Your task to perform on an android device: Open maps Image 0: 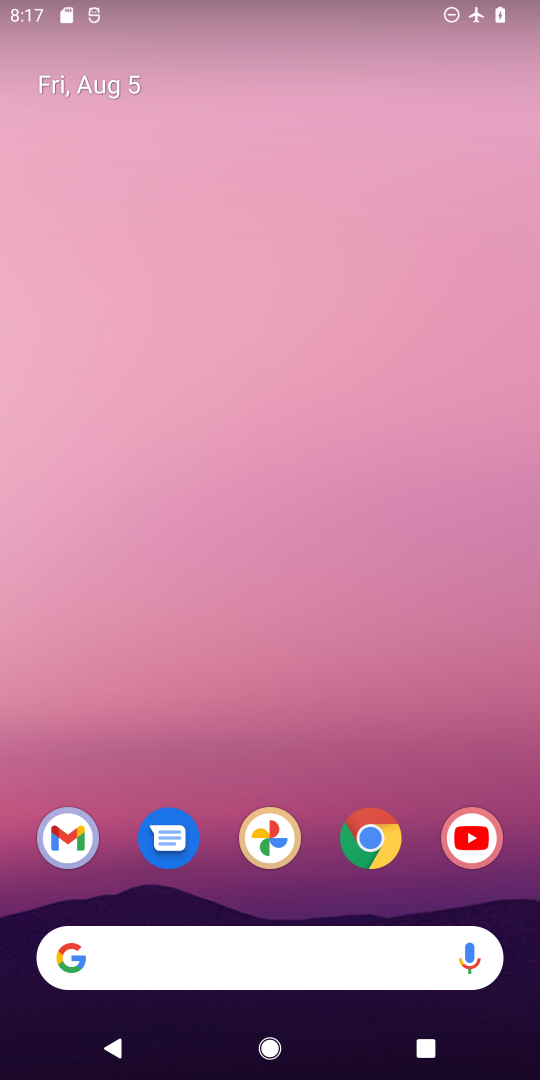
Step 0: drag from (211, 904) to (268, 192)
Your task to perform on an android device: Open maps Image 1: 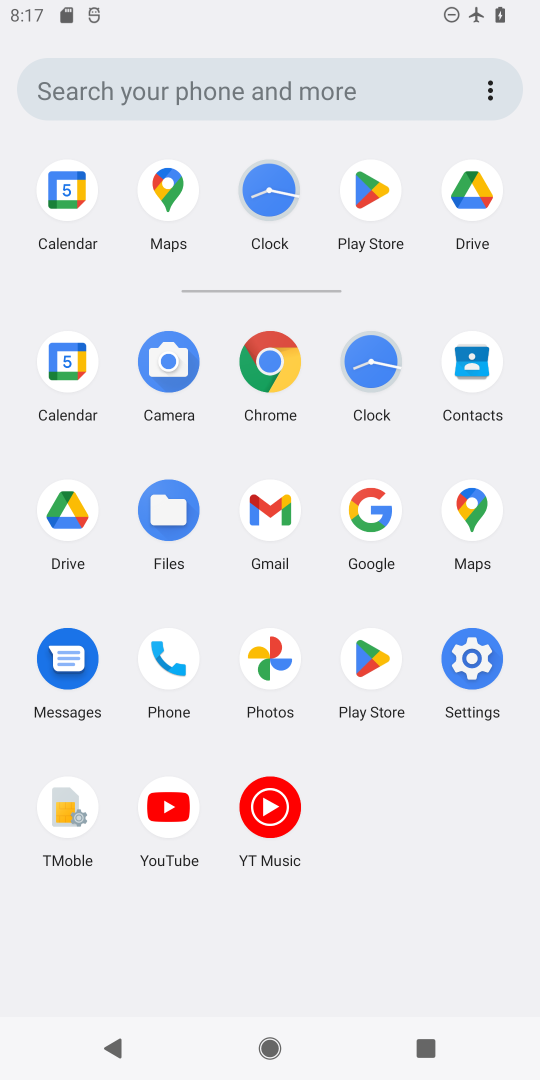
Step 1: click (487, 513)
Your task to perform on an android device: Open maps Image 2: 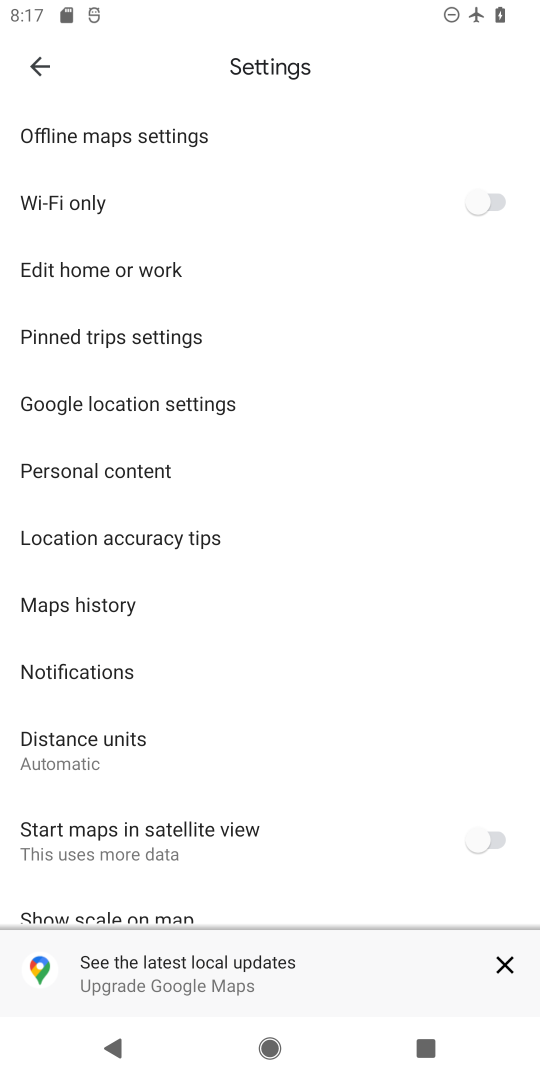
Step 2: drag from (144, 811) to (155, 374)
Your task to perform on an android device: Open maps Image 3: 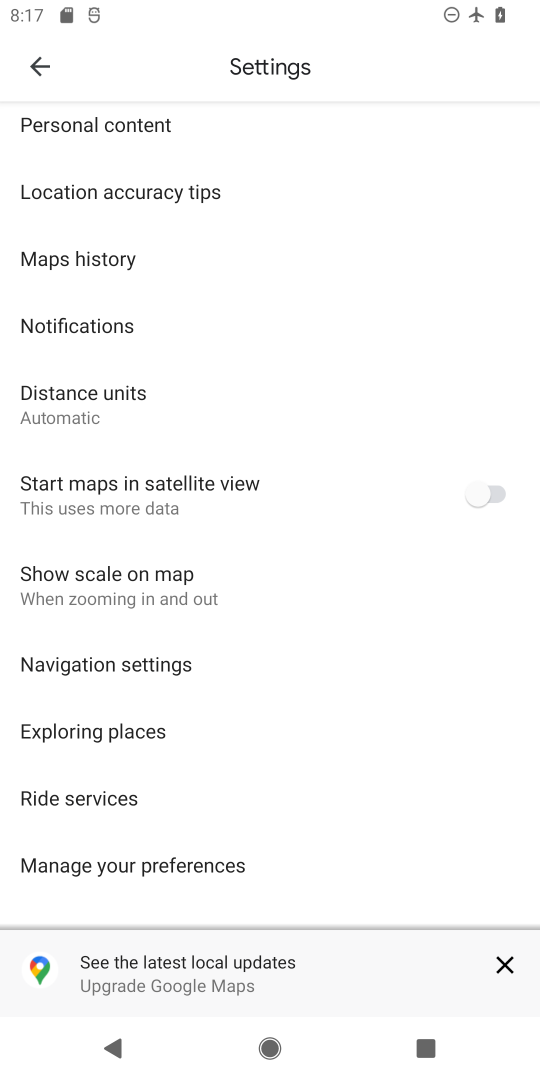
Step 3: click (51, 66)
Your task to perform on an android device: Open maps Image 4: 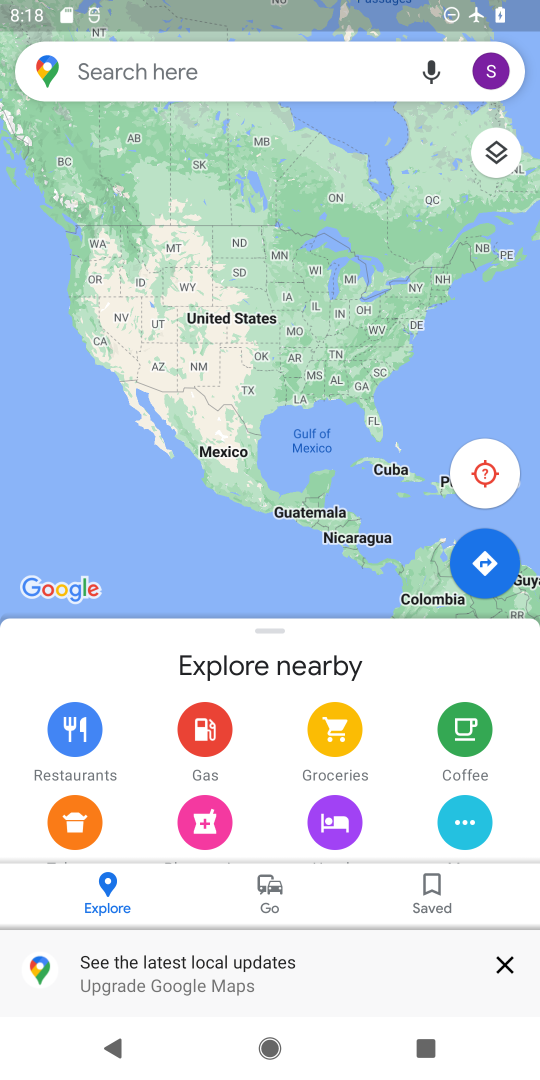
Step 4: task complete